Your task to perform on an android device: install app "Mercado Libre" Image 0: 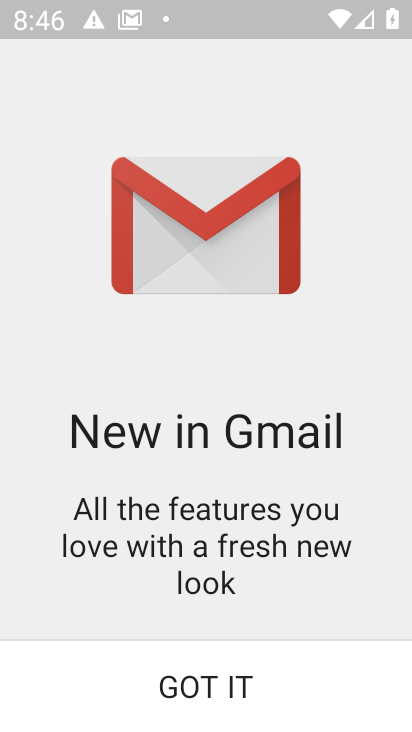
Step 0: press home button
Your task to perform on an android device: install app "Mercado Libre" Image 1: 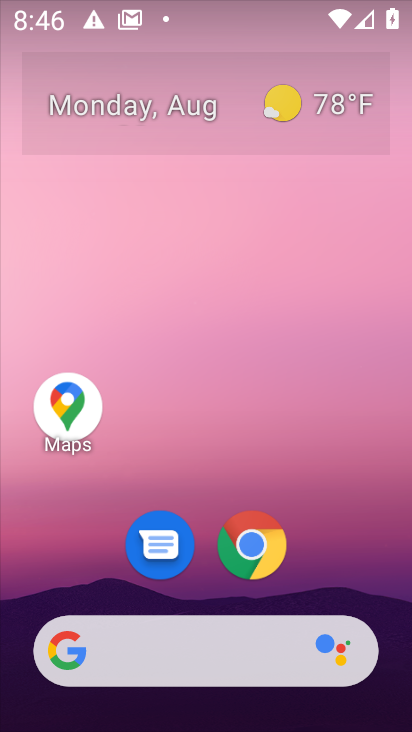
Step 1: drag from (340, 532) to (351, 132)
Your task to perform on an android device: install app "Mercado Libre" Image 2: 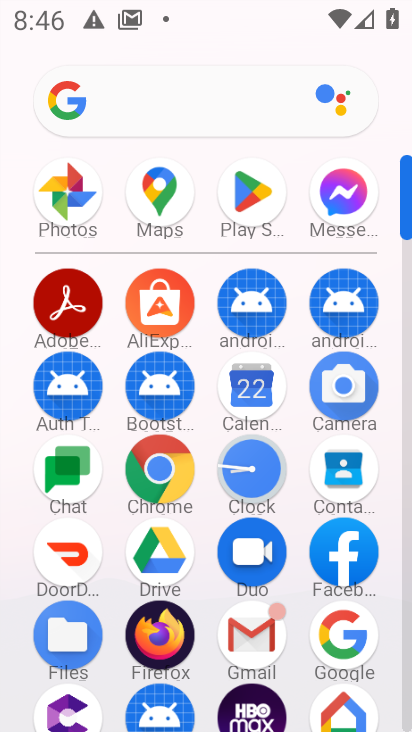
Step 2: click (253, 192)
Your task to perform on an android device: install app "Mercado Libre" Image 3: 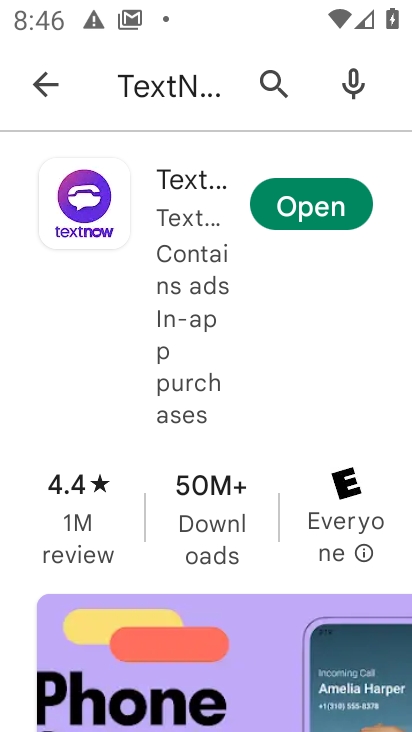
Step 3: press back button
Your task to perform on an android device: install app "Mercado Libre" Image 4: 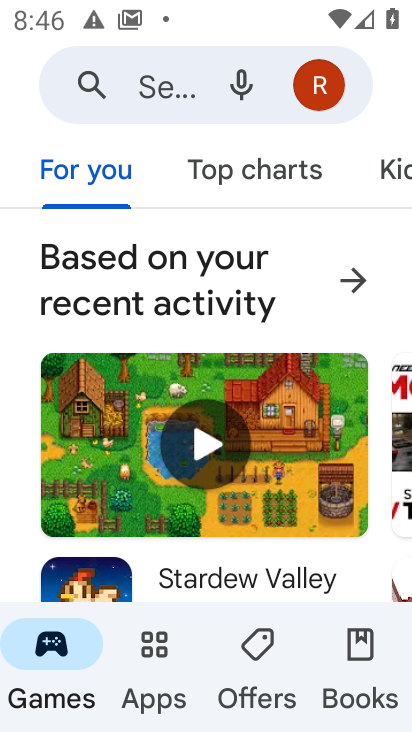
Step 4: click (145, 88)
Your task to perform on an android device: install app "Mercado Libre" Image 5: 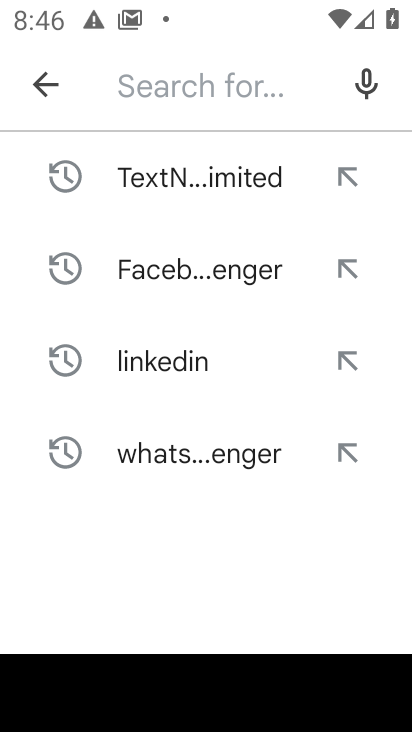
Step 5: type "Mercado Libre"
Your task to perform on an android device: install app "Mercado Libre" Image 6: 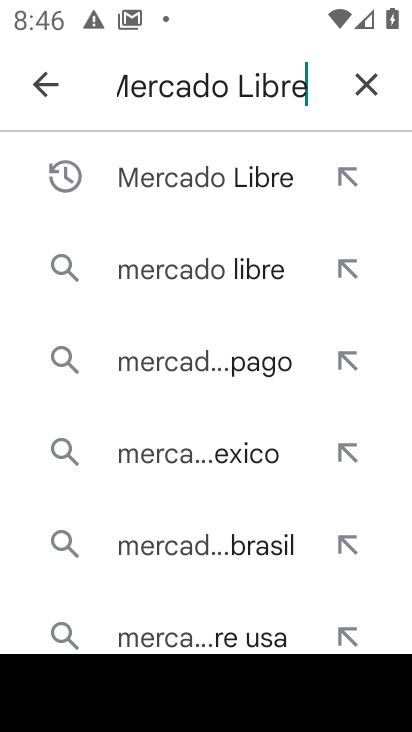
Step 6: press enter
Your task to perform on an android device: install app "Mercado Libre" Image 7: 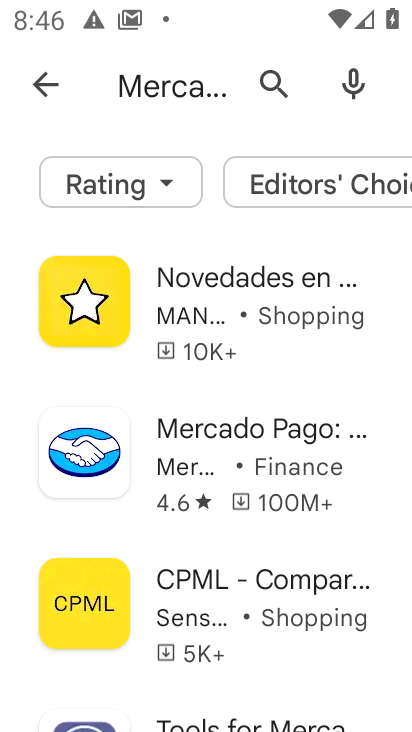
Step 7: drag from (351, 661) to (341, 465)
Your task to perform on an android device: install app "Mercado Libre" Image 8: 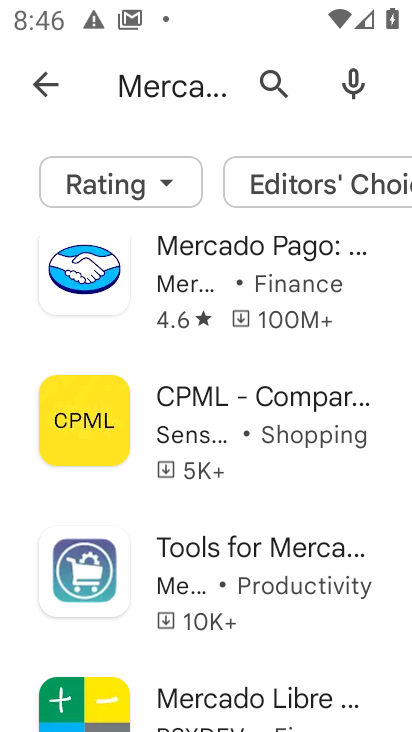
Step 8: drag from (340, 639) to (338, 439)
Your task to perform on an android device: install app "Mercado Libre" Image 9: 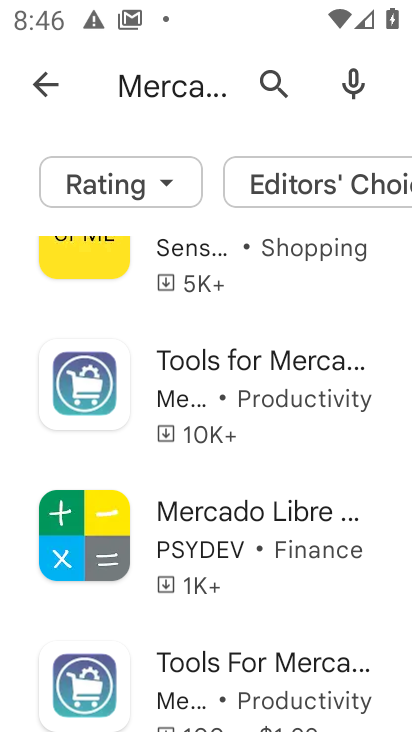
Step 9: drag from (343, 611) to (340, 459)
Your task to perform on an android device: install app "Mercado Libre" Image 10: 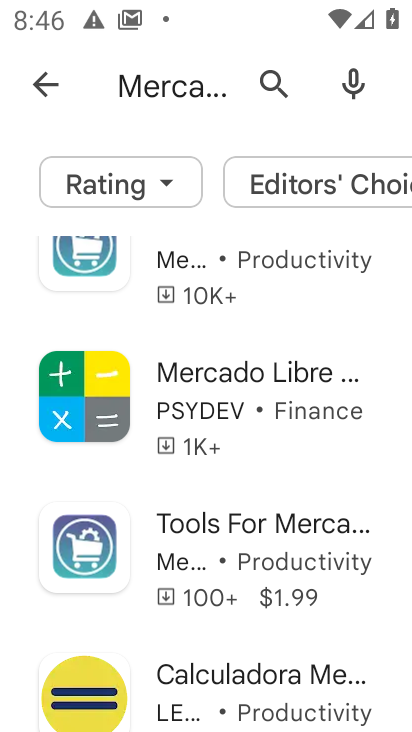
Step 10: click (243, 393)
Your task to perform on an android device: install app "Mercado Libre" Image 11: 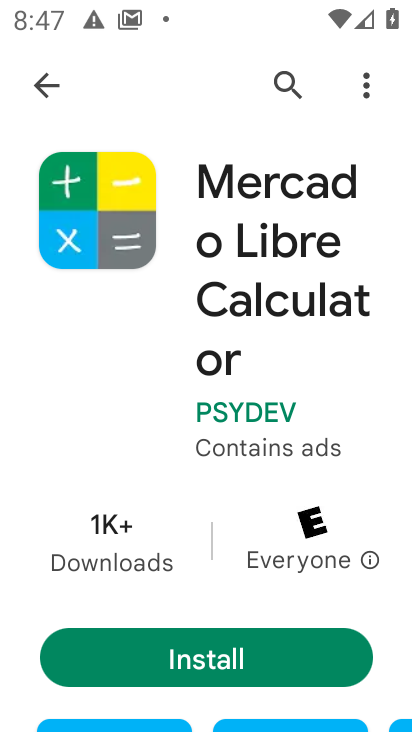
Step 11: task complete